Your task to perform on an android device: Open calendar and show me the third week of next month Image 0: 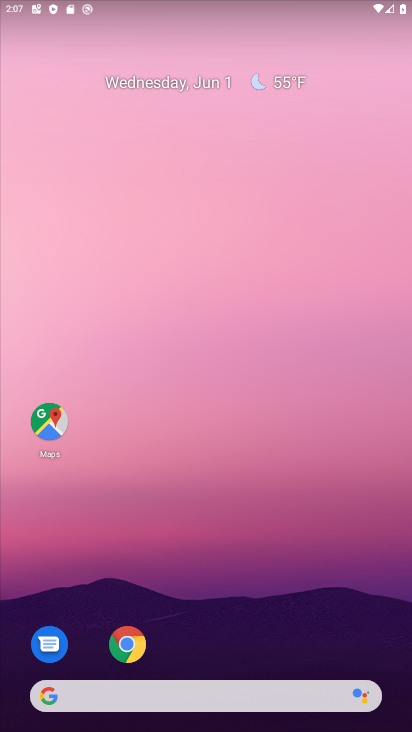
Step 0: drag from (207, 535) to (254, 220)
Your task to perform on an android device: Open calendar and show me the third week of next month Image 1: 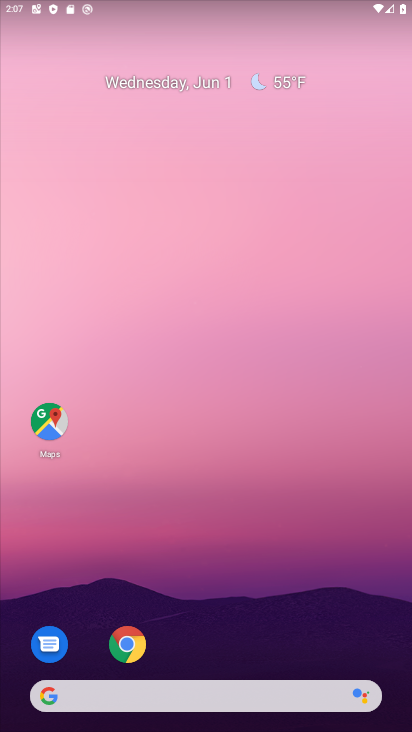
Step 1: drag from (253, 626) to (269, 95)
Your task to perform on an android device: Open calendar and show me the third week of next month Image 2: 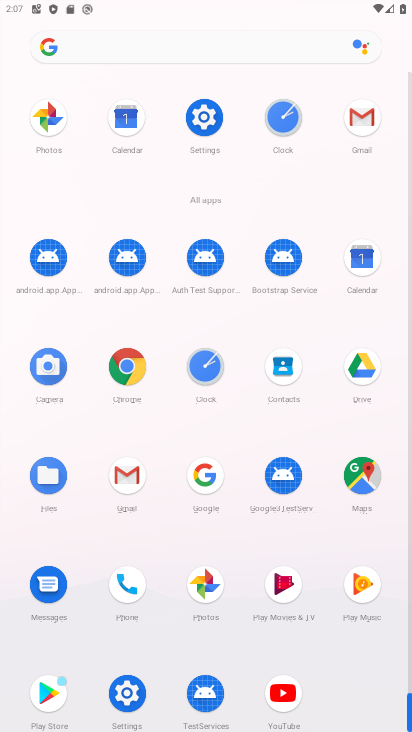
Step 2: click (365, 273)
Your task to perform on an android device: Open calendar and show me the third week of next month Image 3: 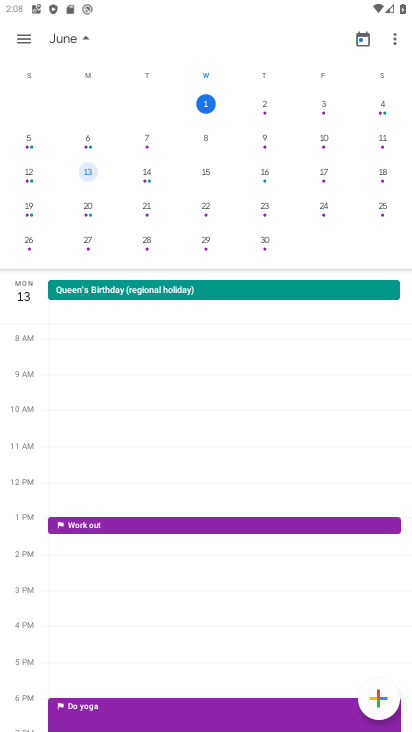
Step 3: drag from (393, 174) to (48, 174)
Your task to perform on an android device: Open calendar and show me the third week of next month Image 4: 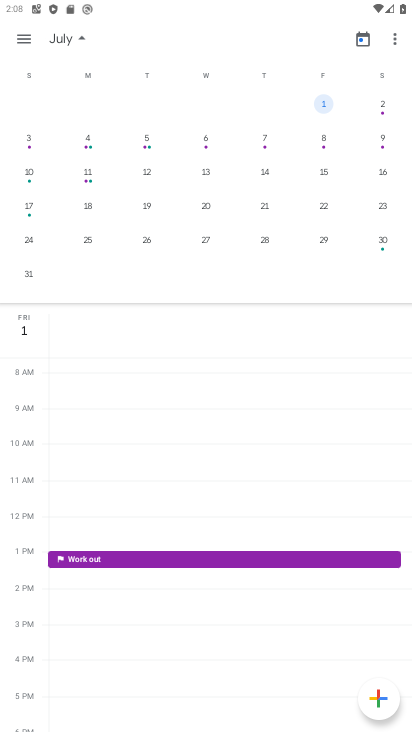
Step 4: click (36, 169)
Your task to perform on an android device: Open calendar and show me the third week of next month Image 5: 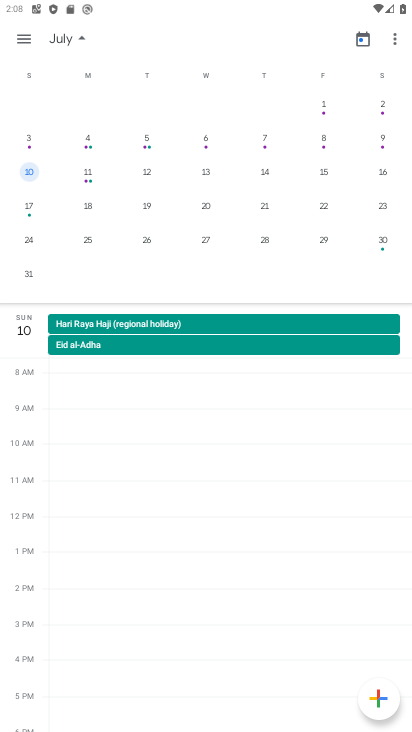
Step 5: click (88, 176)
Your task to perform on an android device: Open calendar and show me the third week of next month Image 6: 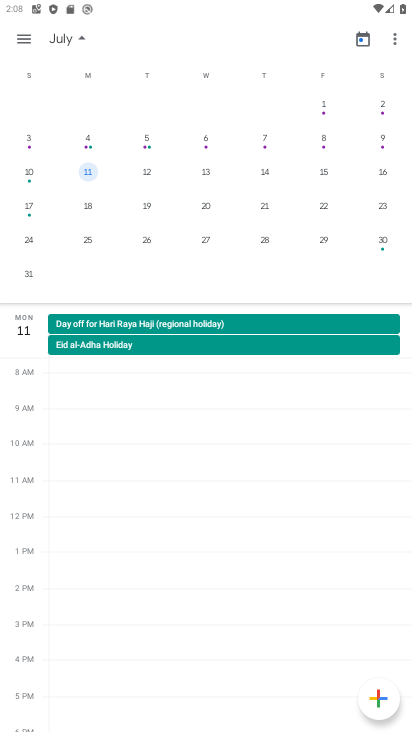
Step 6: click (155, 174)
Your task to perform on an android device: Open calendar and show me the third week of next month Image 7: 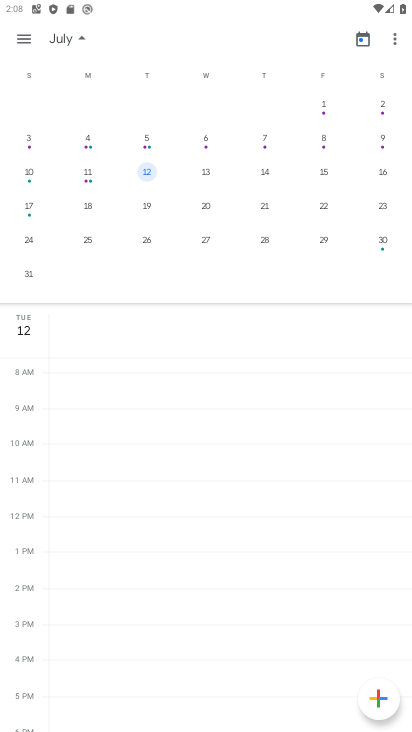
Step 7: click (202, 175)
Your task to perform on an android device: Open calendar and show me the third week of next month Image 8: 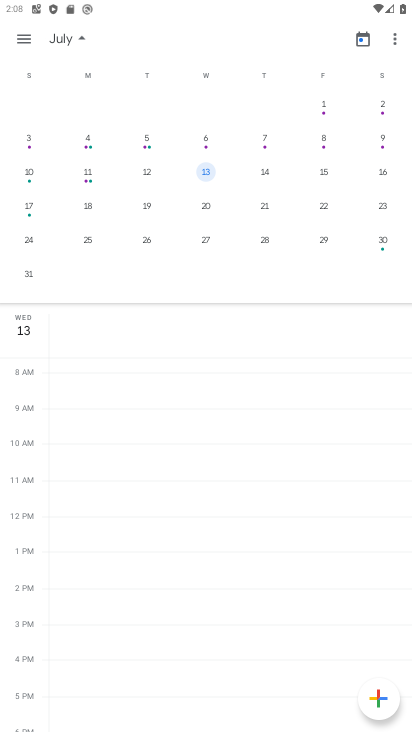
Step 8: click (261, 180)
Your task to perform on an android device: Open calendar and show me the third week of next month Image 9: 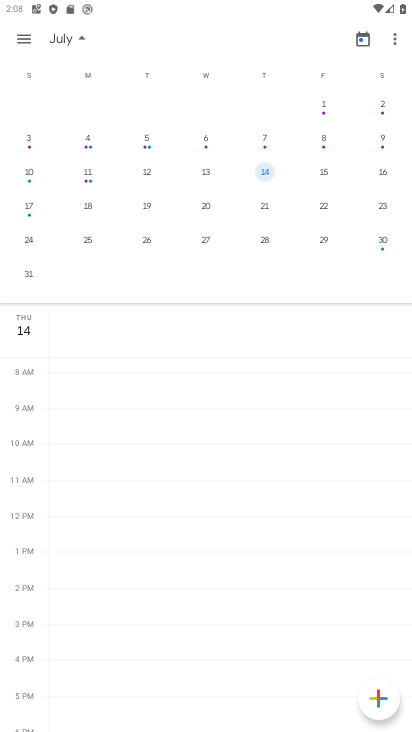
Step 9: click (333, 177)
Your task to perform on an android device: Open calendar and show me the third week of next month Image 10: 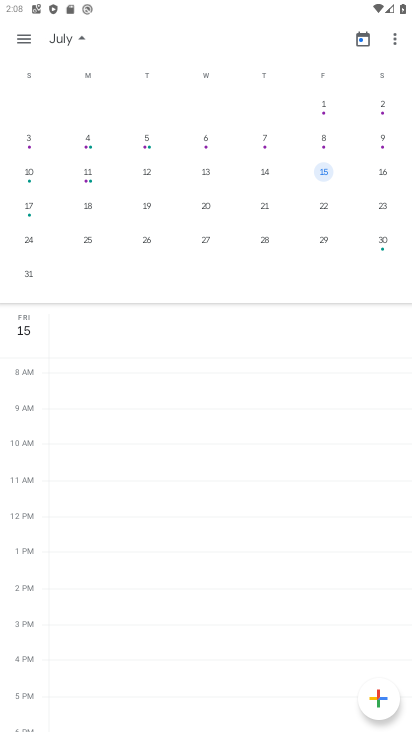
Step 10: click (379, 172)
Your task to perform on an android device: Open calendar and show me the third week of next month Image 11: 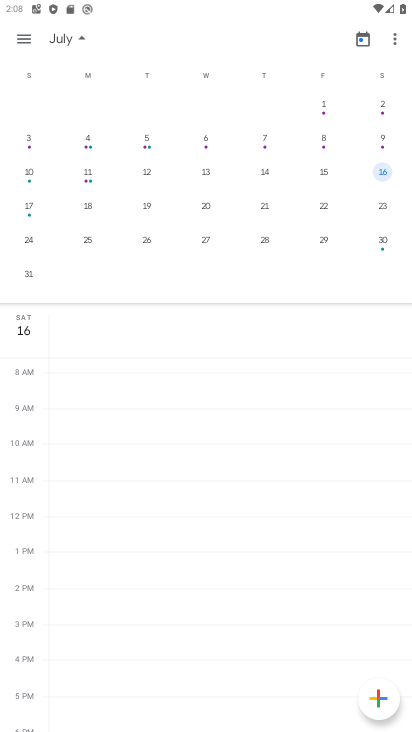
Step 11: task complete